Your task to perform on an android device: Toggle the flashlight Image 0: 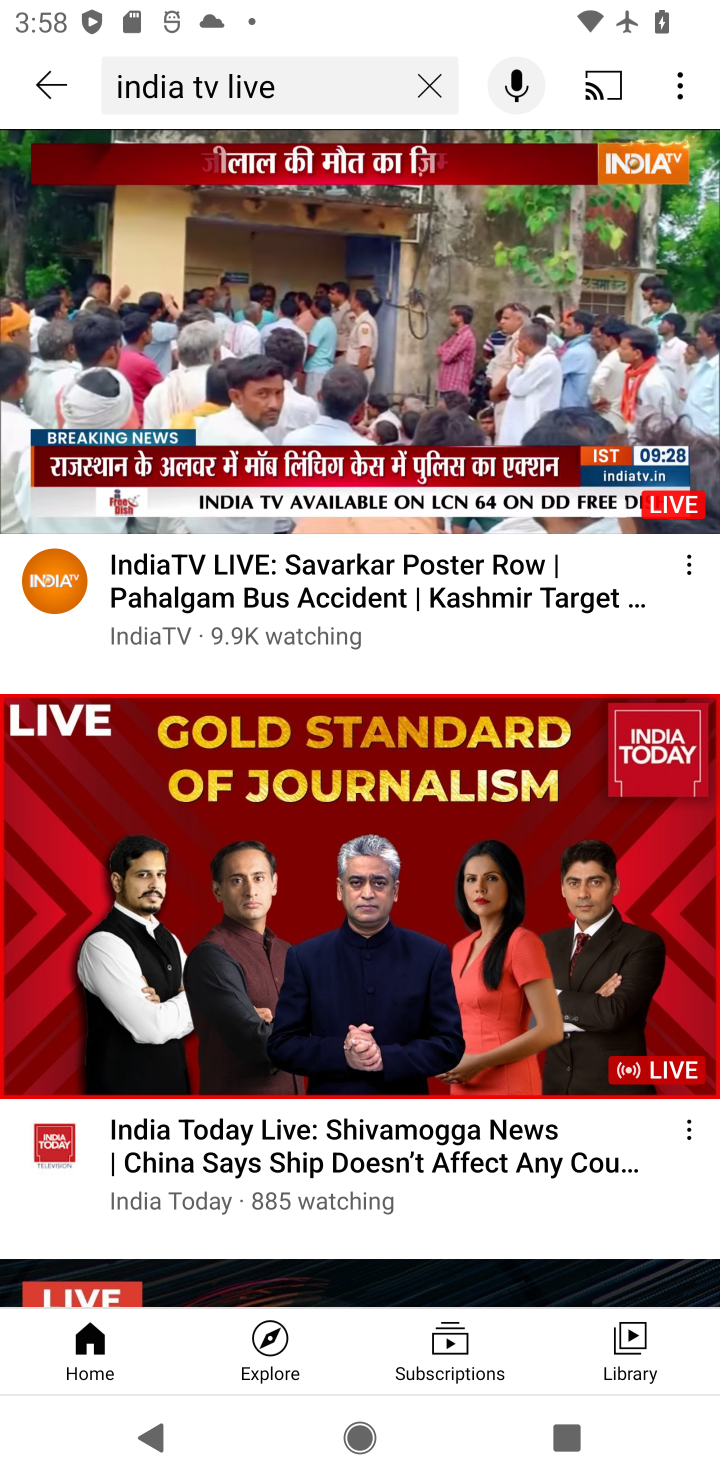
Step 0: press home button
Your task to perform on an android device: Toggle the flashlight Image 1: 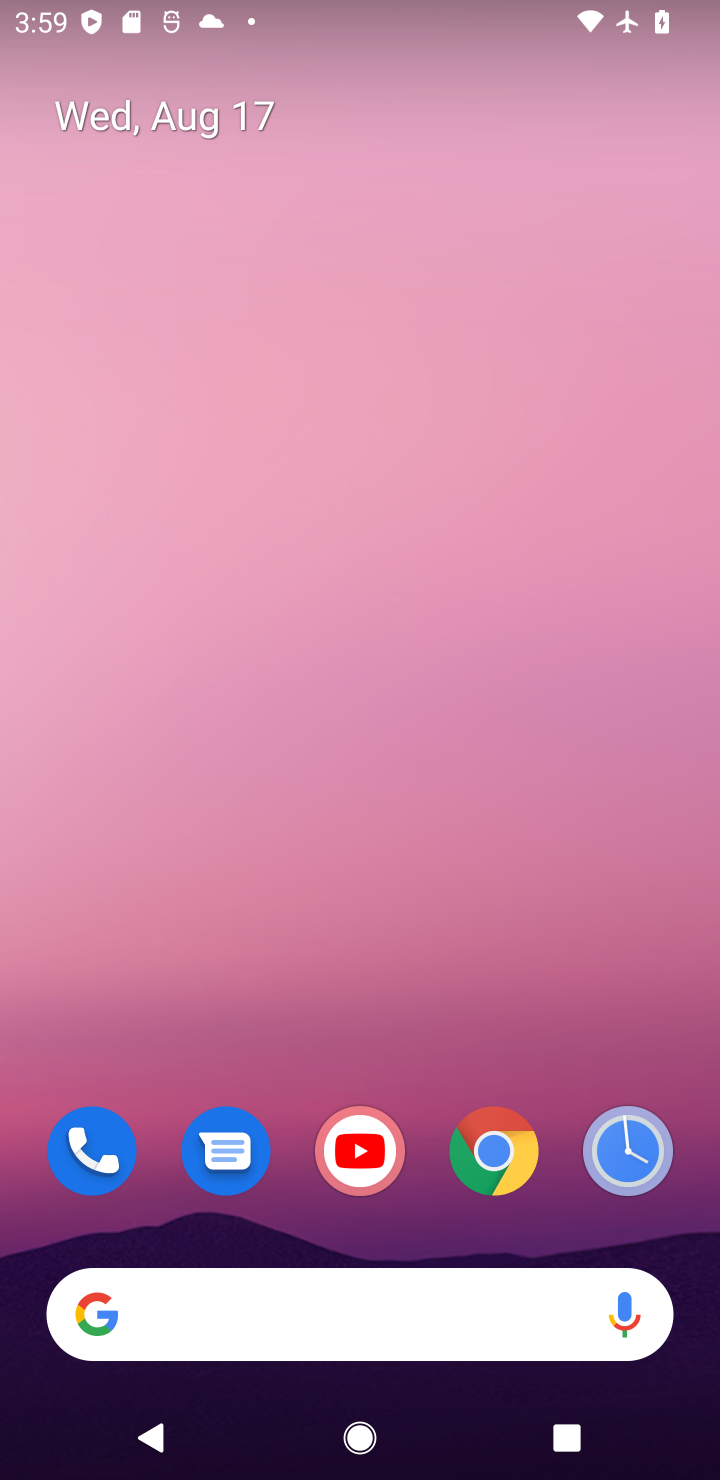
Step 1: drag from (421, 749) to (467, 354)
Your task to perform on an android device: Toggle the flashlight Image 2: 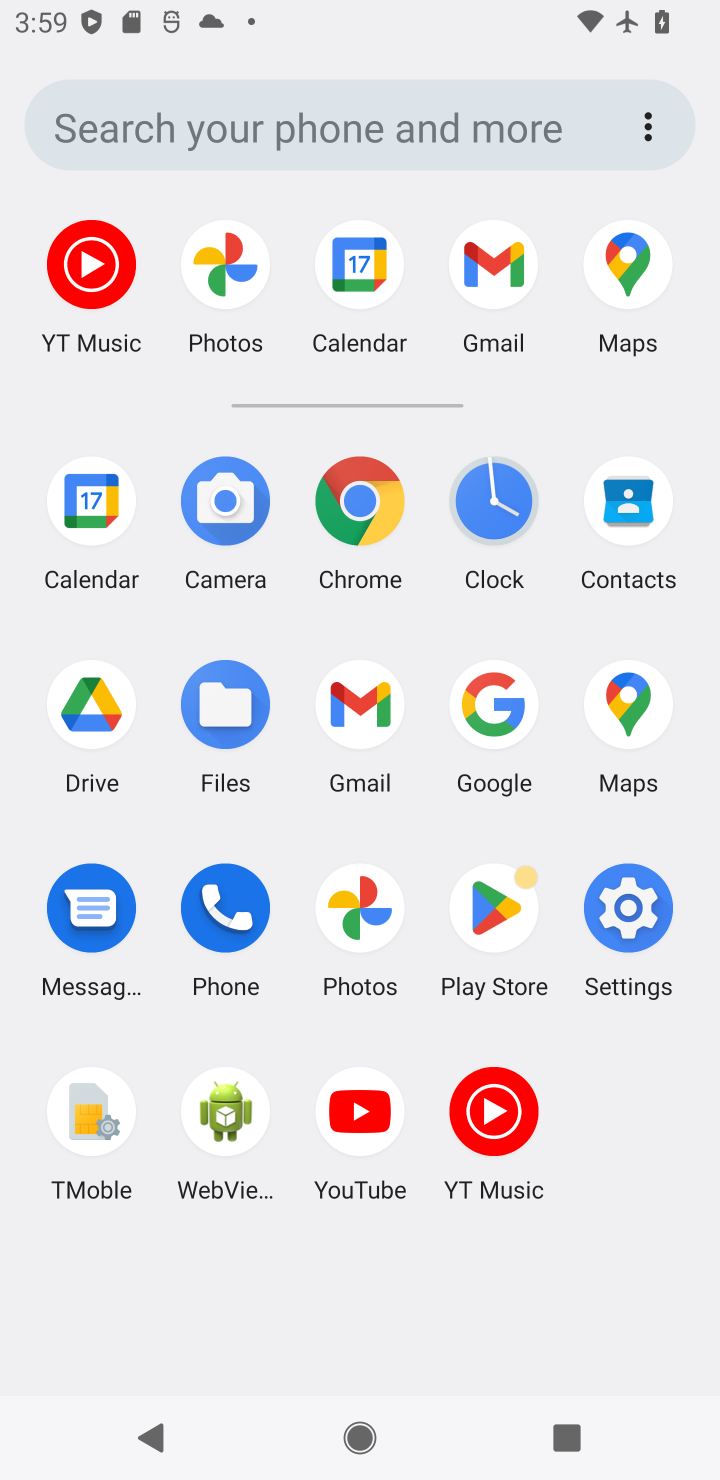
Step 2: click (634, 901)
Your task to perform on an android device: Toggle the flashlight Image 3: 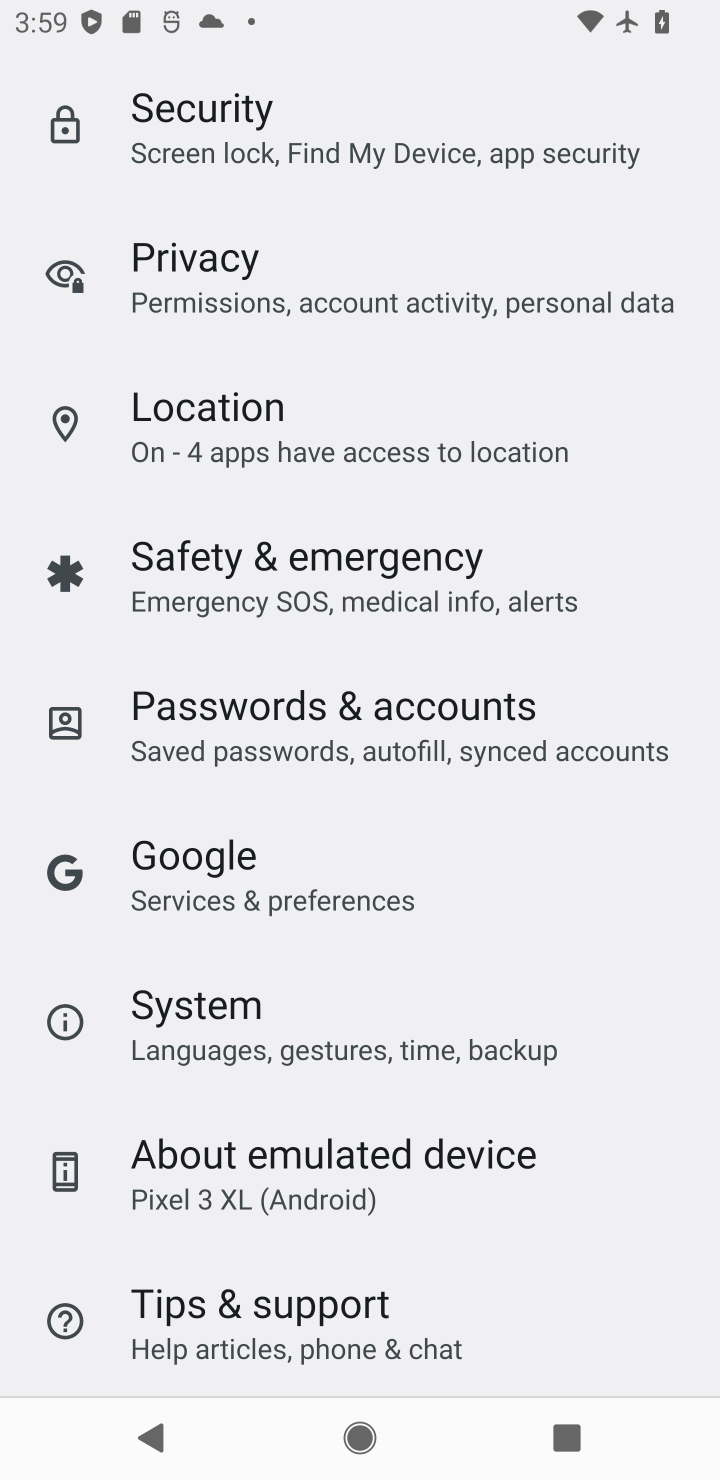
Step 3: task complete